Your task to perform on an android device: turn off location history Image 0: 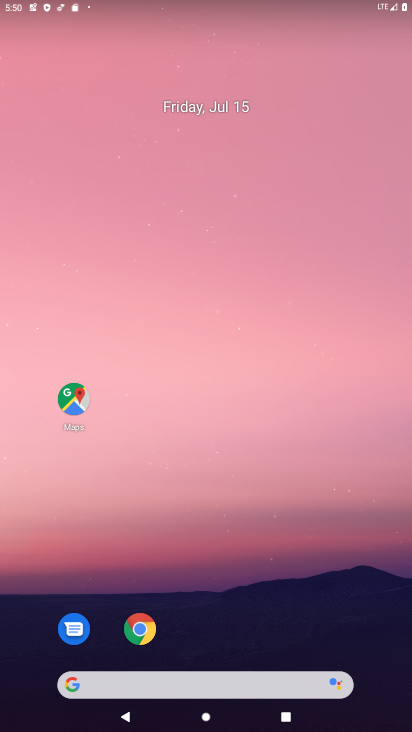
Step 0: drag from (241, 648) to (124, 24)
Your task to perform on an android device: turn off location history Image 1: 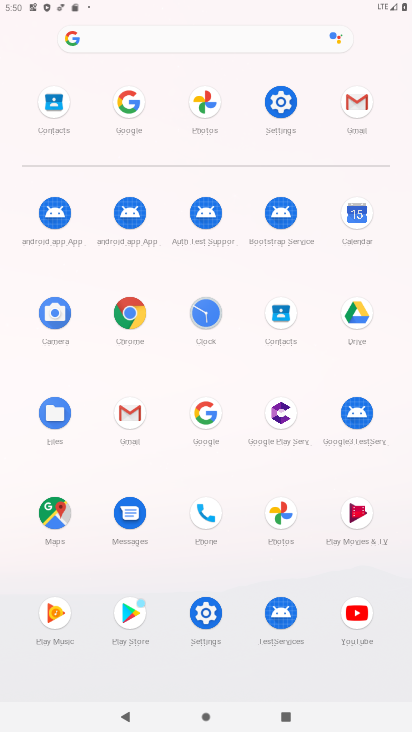
Step 1: click (288, 110)
Your task to perform on an android device: turn off location history Image 2: 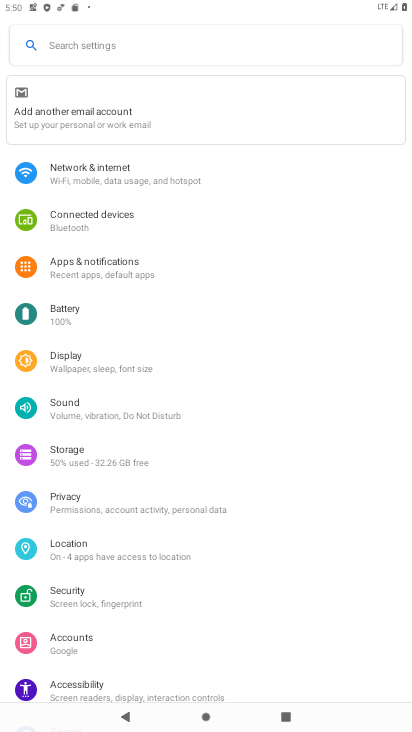
Step 2: click (86, 544)
Your task to perform on an android device: turn off location history Image 3: 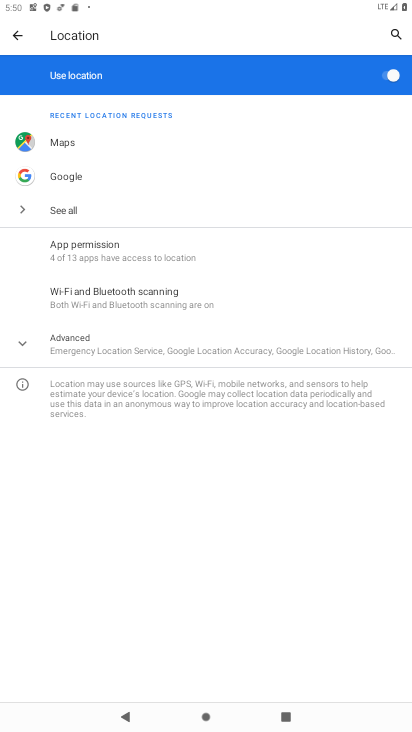
Step 3: click (67, 345)
Your task to perform on an android device: turn off location history Image 4: 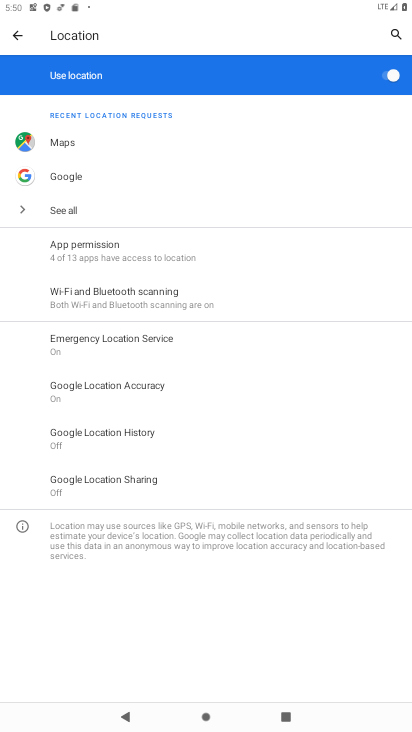
Step 4: click (140, 435)
Your task to perform on an android device: turn off location history Image 5: 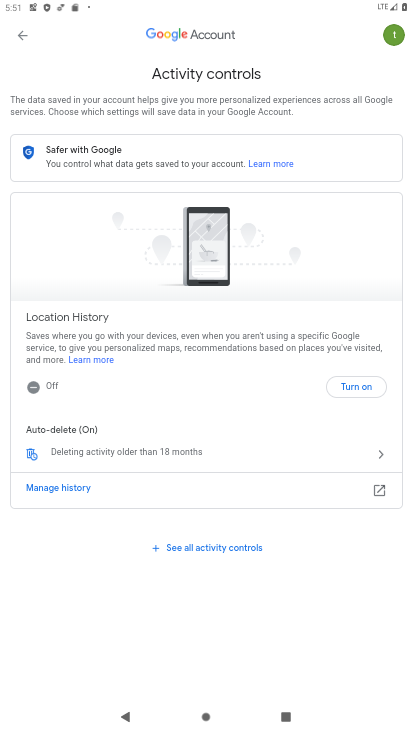
Step 5: task complete